Your task to perform on an android device: Open Google Maps and go to "Timeline" Image 0: 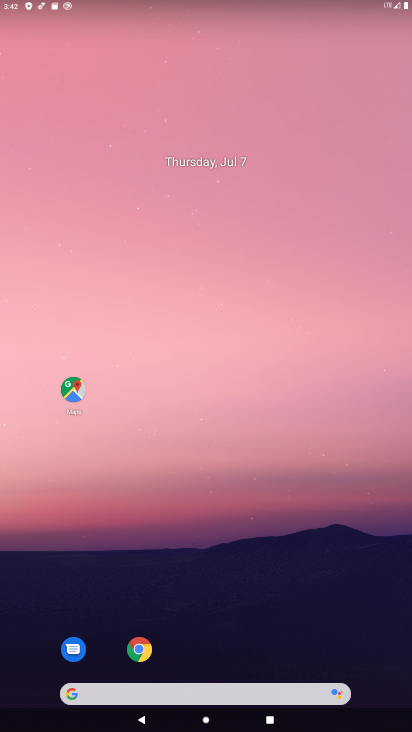
Step 0: drag from (226, 676) to (219, 451)
Your task to perform on an android device: Open Google Maps and go to "Timeline" Image 1: 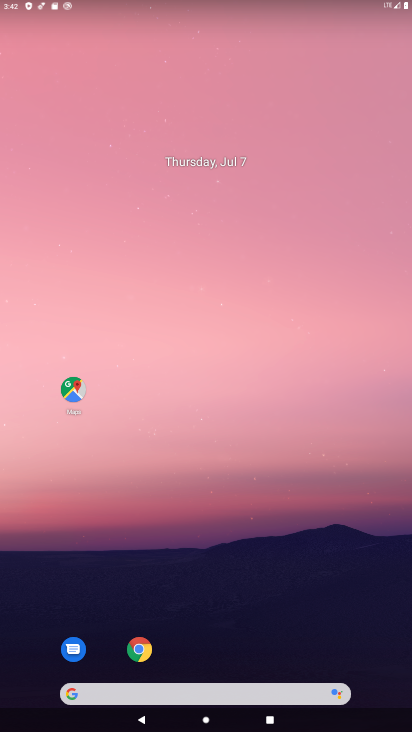
Step 1: drag from (211, 621) to (288, 93)
Your task to perform on an android device: Open Google Maps and go to "Timeline" Image 2: 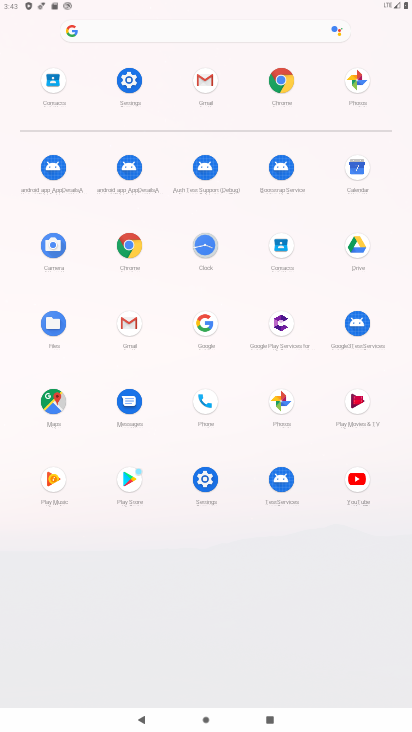
Step 2: click (44, 408)
Your task to perform on an android device: Open Google Maps and go to "Timeline" Image 3: 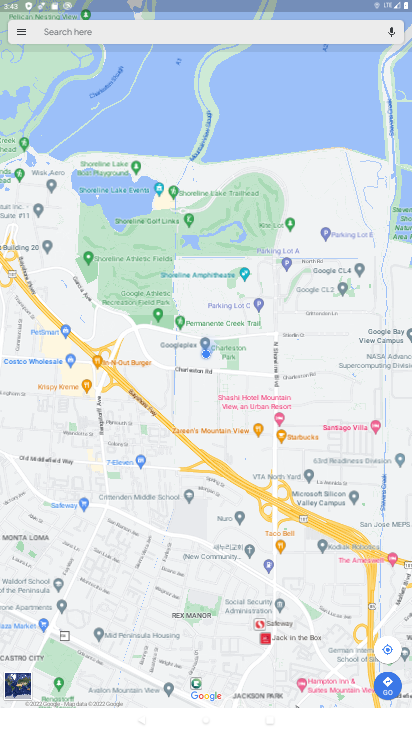
Step 3: click (16, 33)
Your task to perform on an android device: Open Google Maps and go to "Timeline" Image 4: 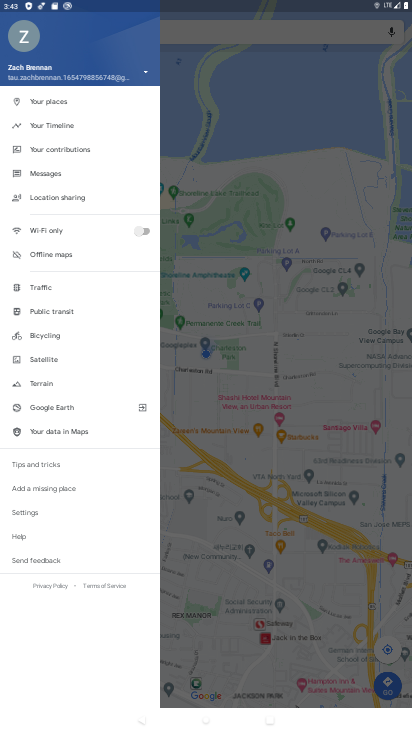
Step 4: click (60, 123)
Your task to perform on an android device: Open Google Maps and go to "Timeline" Image 5: 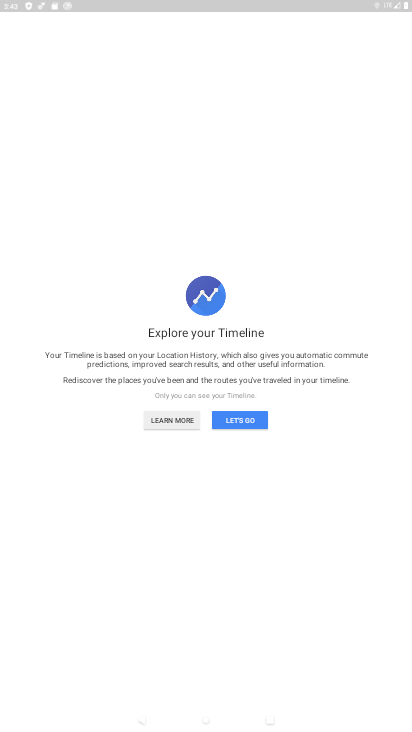
Step 5: click (251, 421)
Your task to perform on an android device: Open Google Maps and go to "Timeline" Image 6: 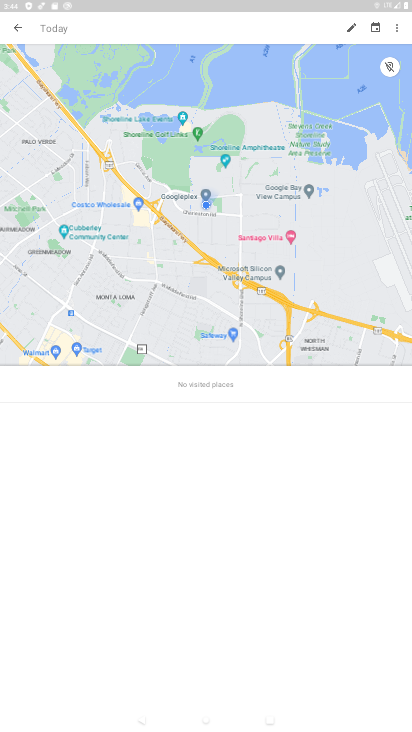
Step 6: task complete